Your task to perform on an android device: Open wifi settings Image 0: 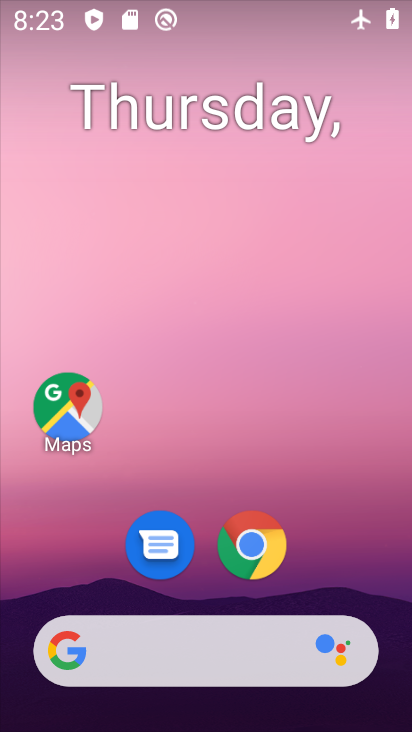
Step 0: drag from (269, 575) to (325, 234)
Your task to perform on an android device: Open wifi settings Image 1: 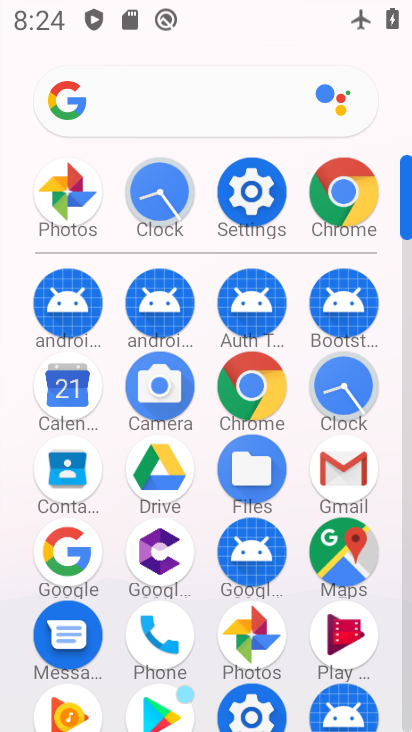
Step 1: click (255, 192)
Your task to perform on an android device: Open wifi settings Image 2: 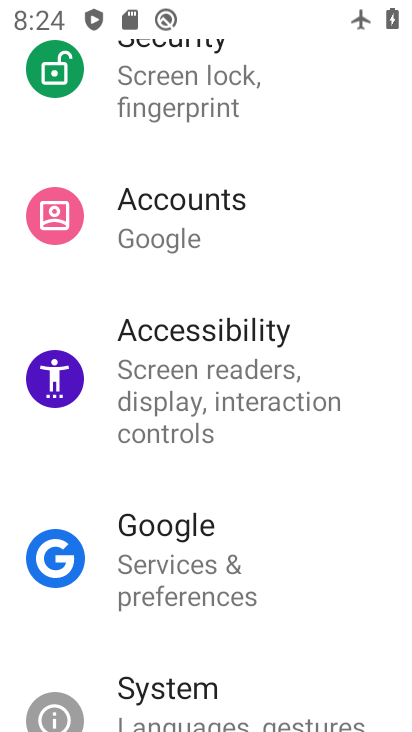
Step 2: drag from (155, 107) to (161, 683)
Your task to perform on an android device: Open wifi settings Image 3: 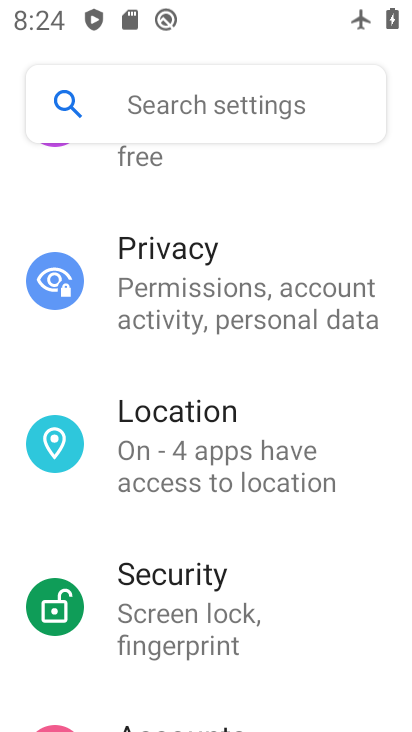
Step 3: drag from (235, 258) to (217, 689)
Your task to perform on an android device: Open wifi settings Image 4: 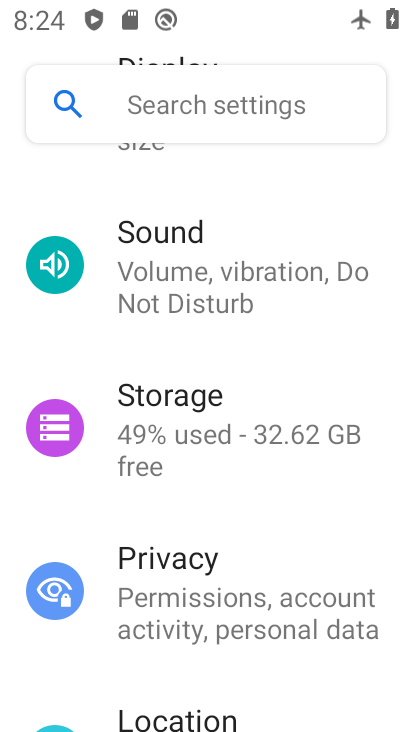
Step 4: drag from (239, 221) to (228, 522)
Your task to perform on an android device: Open wifi settings Image 5: 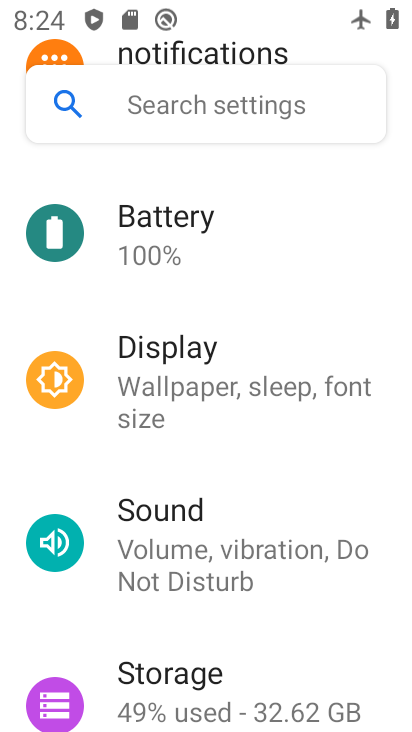
Step 5: click (228, 537)
Your task to perform on an android device: Open wifi settings Image 6: 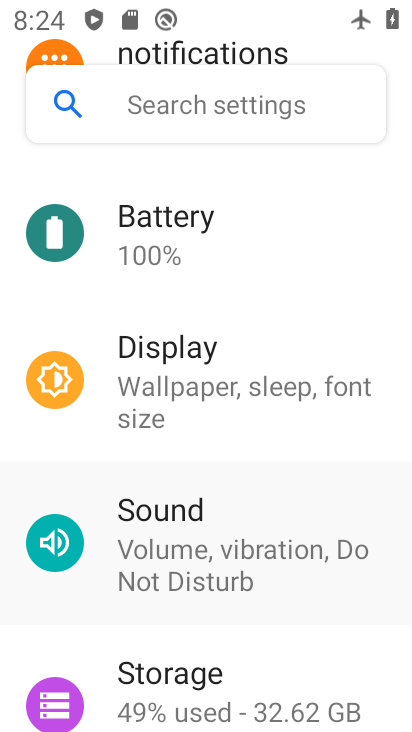
Step 6: drag from (200, 258) to (229, 628)
Your task to perform on an android device: Open wifi settings Image 7: 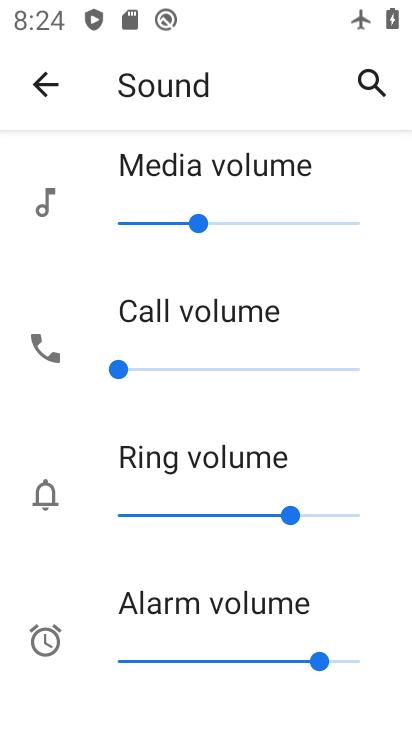
Step 7: press back button
Your task to perform on an android device: Open wifi settings Image 8: 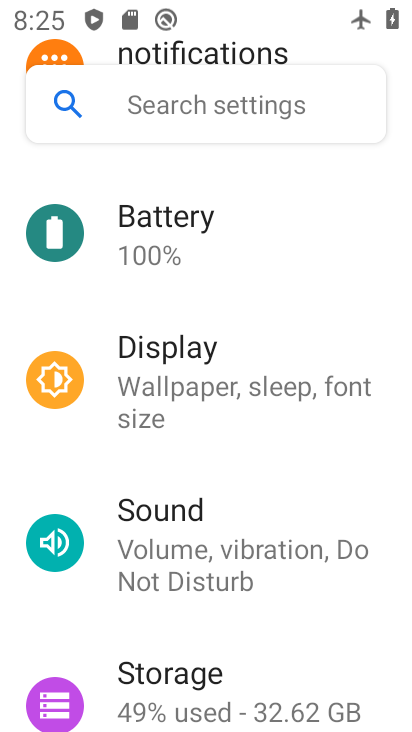
Step 8: drag from (227, 263) to (223, 598)
Your task to perform on an android device: Open wifi settings Image 9: 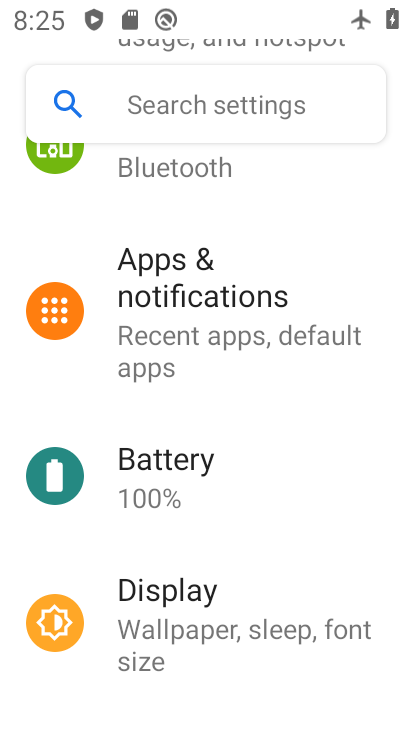
Step 9: drag from (223, 168) to (189, 617)
Your task to perform on an android device: Open wifi settings Image 10: 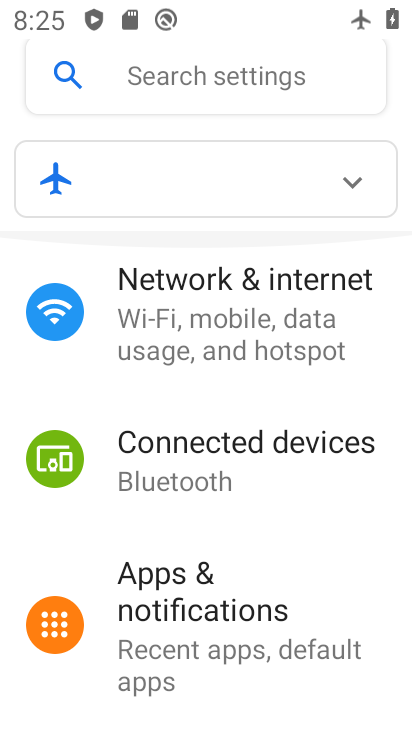
Step 10: click (192, 310)
Your task to perform on an android device: Open wifi settings Image 11: 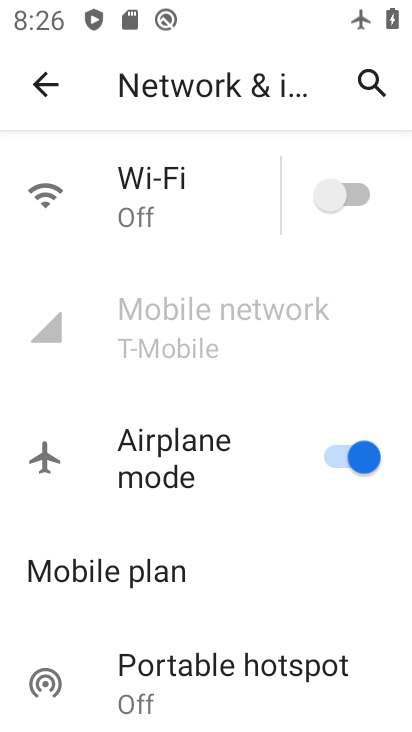
Step 11: click (327, 192)
Your task to perform on an android device: Open wifi settings Image 12: 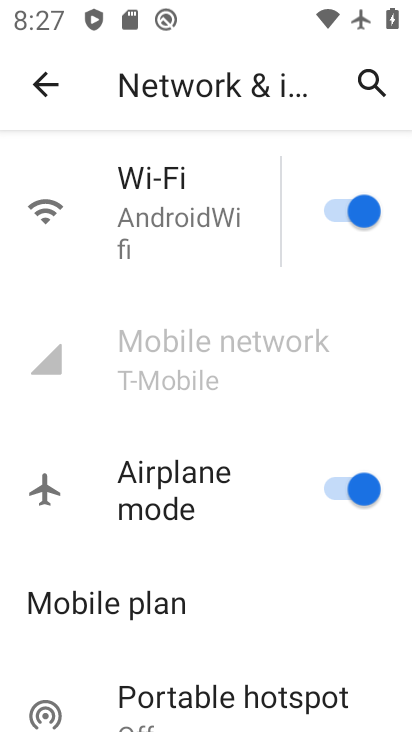
Step 12: task complete